Your task to perform on an android device: stop showing notifications on the lock screen Image 0: 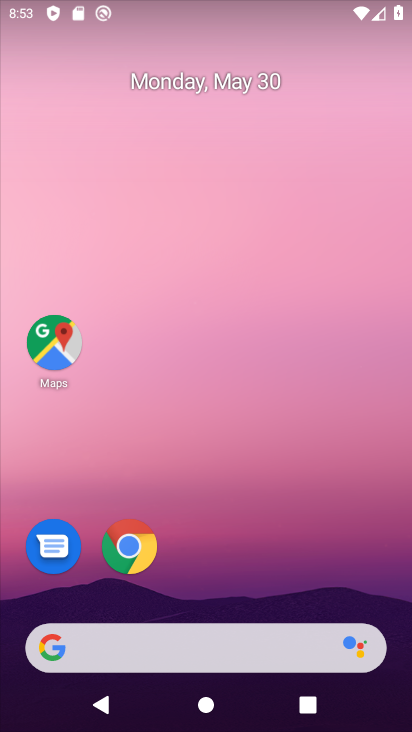
Step 0: drag from (250, 564) to (194, 75)
Your task to perform on an android device: stop showing notifications on the lock screen Image 1: 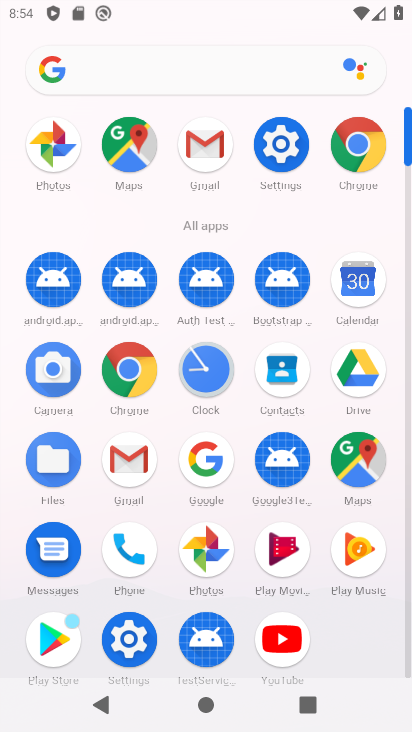
Step 1: click (122, 645)
Your task to perform on an android device: stop showing notifications on the lock screen Image 2: 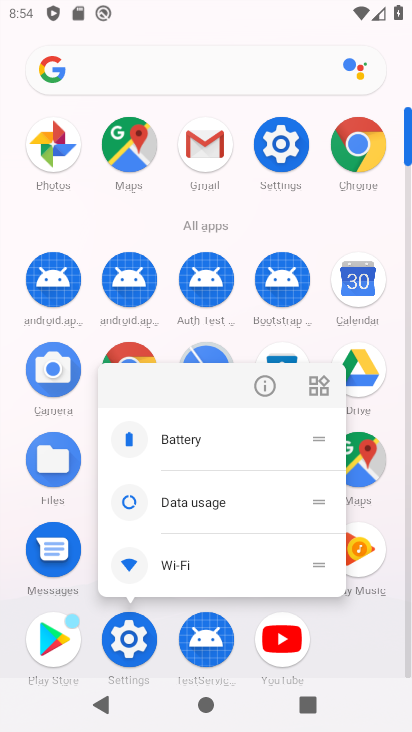
Step 2: click (127, 640)
Your task to perform on an android device: stop showing notifications on the lock screen Image 3: 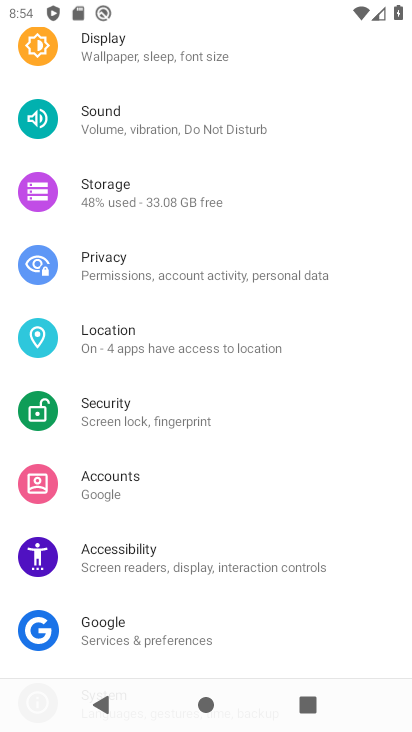
Step 3: drag from (144, 313) to (142, 624)
Your task to perform on an android device: stop showing notifications on the lock screen Image 4: 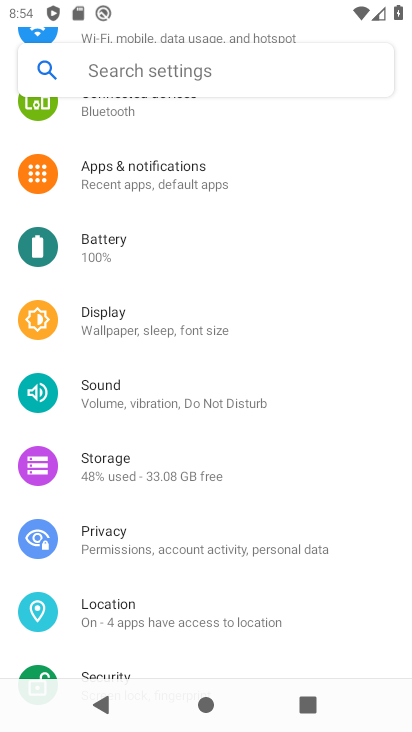
Step 4: click (196, 173)
Your task to perform on an android device: stop showing notifications on the lock screen Image 5: 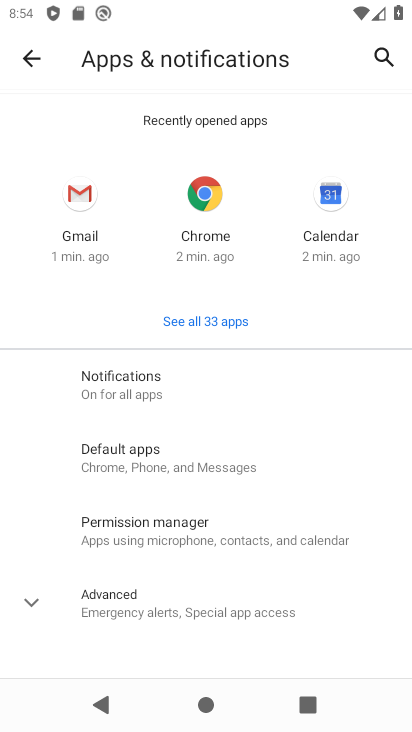
Step 5: click (132, 382)
Your task to perform on an android device: stop showing notifications on the lock screen Image 6: 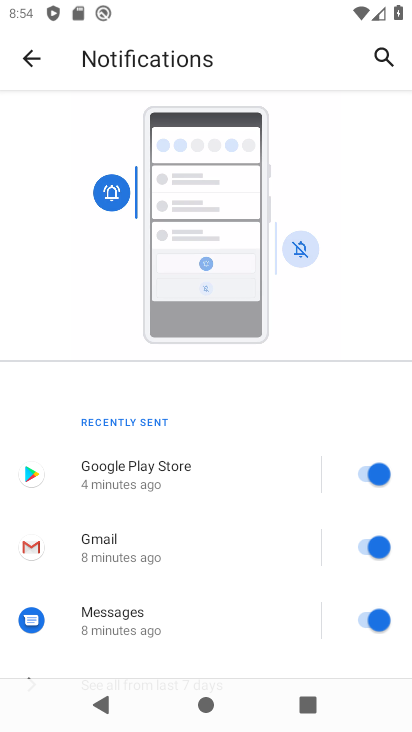
Step 6: drag from (156, 610) to (174, 84)
Your task to perform on an android device: stop showing notifications on the lock screen Image 7: 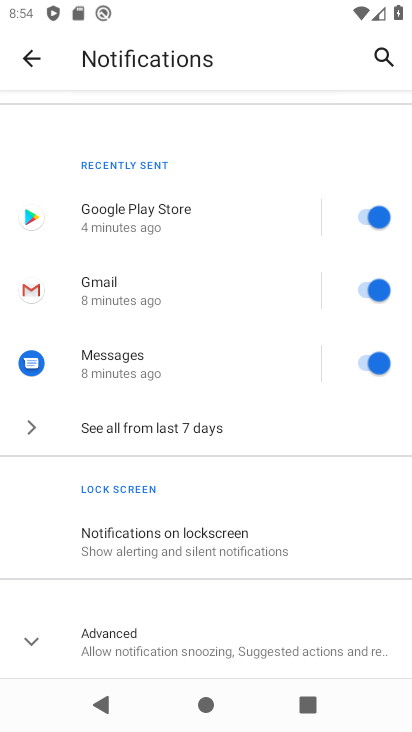
Step 7: click (137, 541)
Your task to perform on an android device: stop showing notifications on the lock screen Image 8: 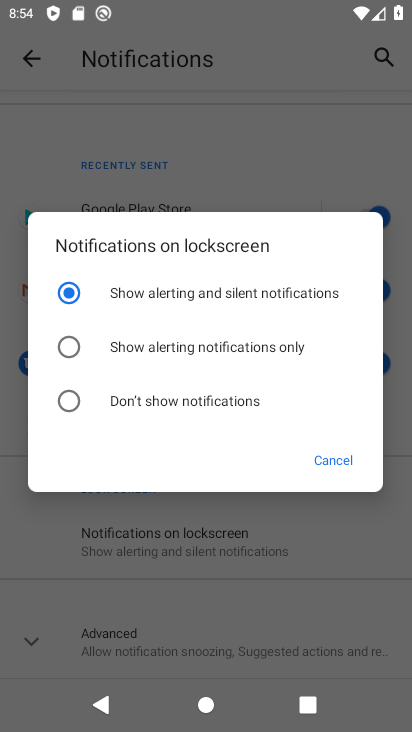
Step 8: click (144, 406)
Your task to perform on an android device: stop showing notifications on the lock screen Image 9: 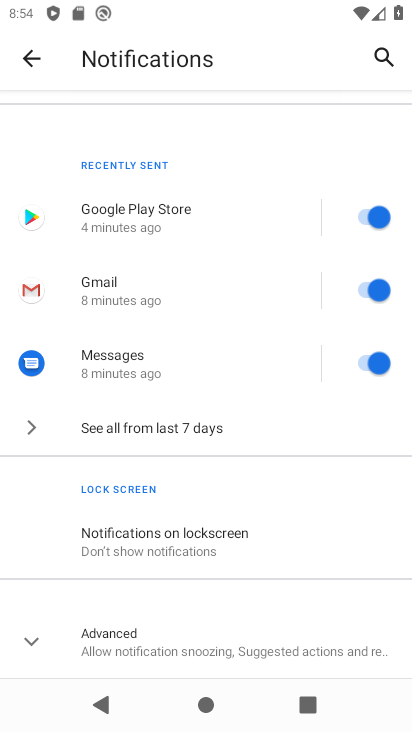
Step 9: task complete